Your task to perform on an android device: manage bookmarks in the chrome app Image 0: 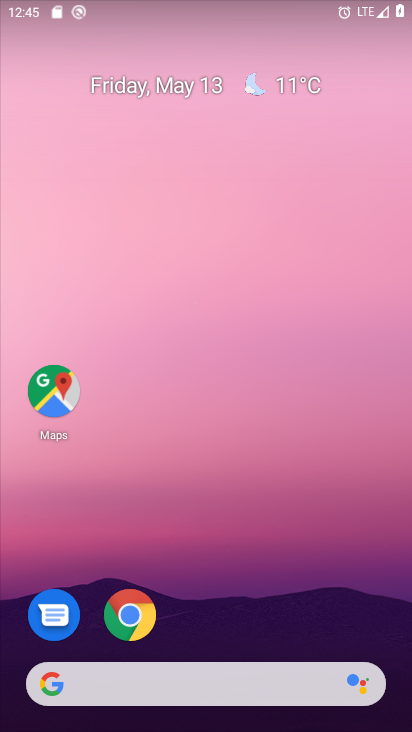
Step 0: click (126, 608)
Your task to perform on an android device: manage bookmarks in the chrome app Image 1: 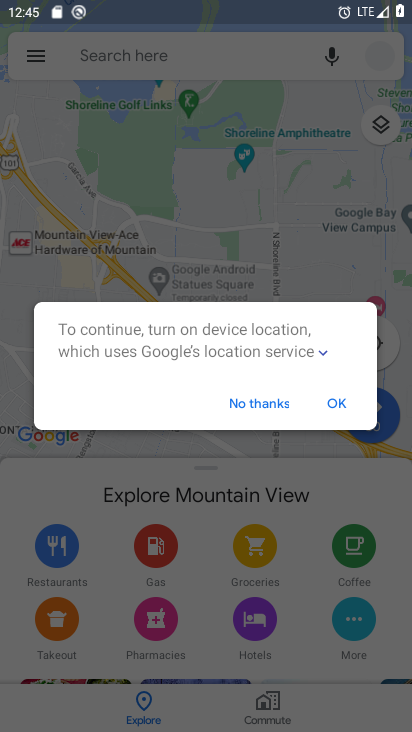
Step 1: click (265, 392)
Your task to perform on an android device: manage bookmarks in the chrome app Image 2: 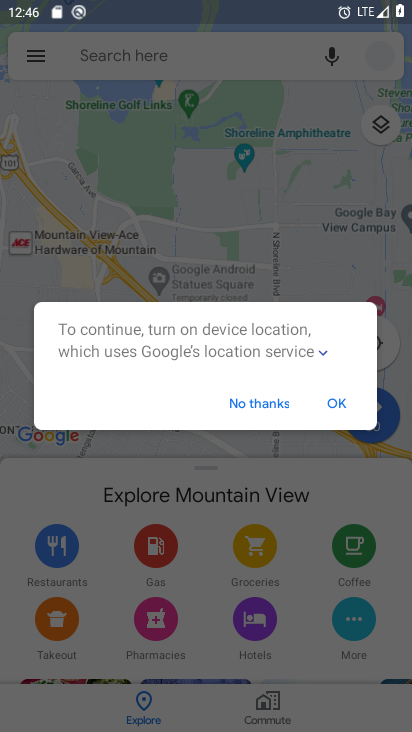
Step 2: click (262, 404)
Your task to perform on an android device: manage bookmarks in the chrome app Image 3: 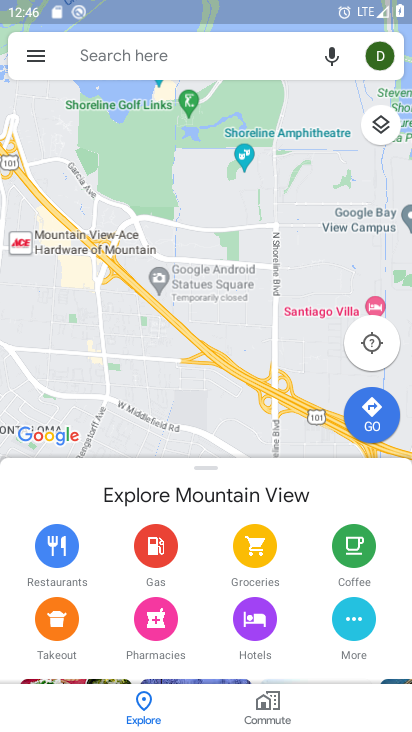
Step 3: press home button
Your task to perform on an android device: manage bookmarks in the chrome app Image 4: 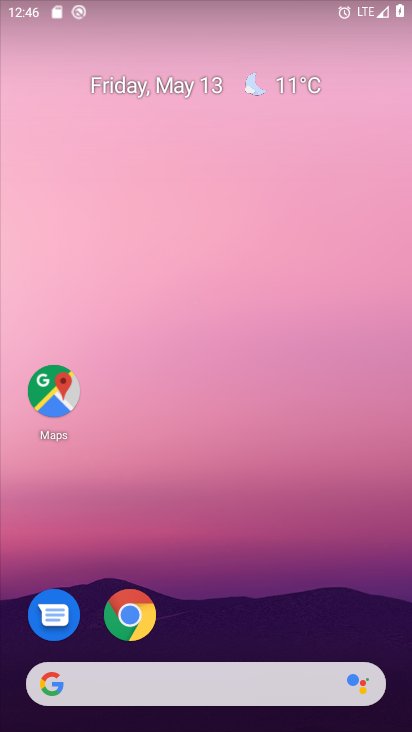
Step 4: drag from (231, 562) to (268, 212)
Your task to perform on an android device: manage bookmarks in the chrome app Image 5: 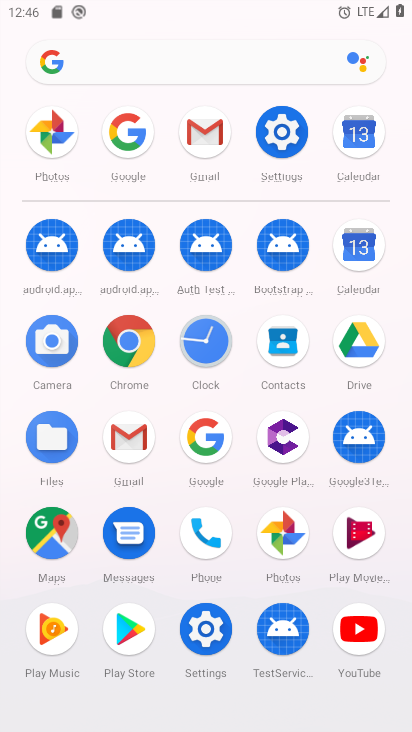
Step 5: click (133, 349)
Your task to perform on an android device: manage bookmarks in the chrome app Image 6: 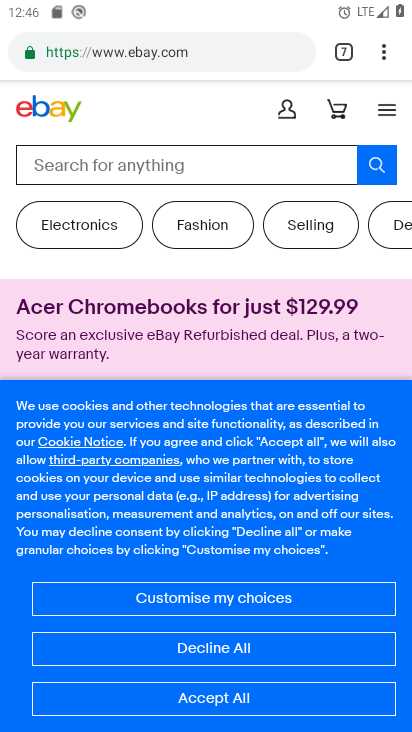
Step 6: click (384, 50)
Your task to perform on an android device: manage bookmarks in the chrome app Image 7: 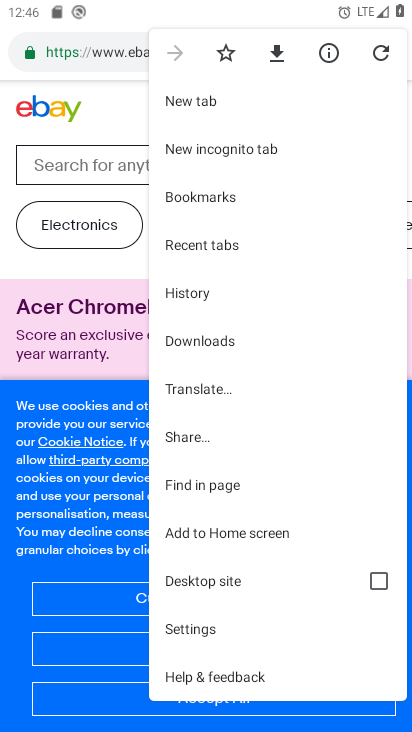
Step 7: click (244, 192)
Your task to perform on an android device: manage bookmarks in the chrome app Image 8: 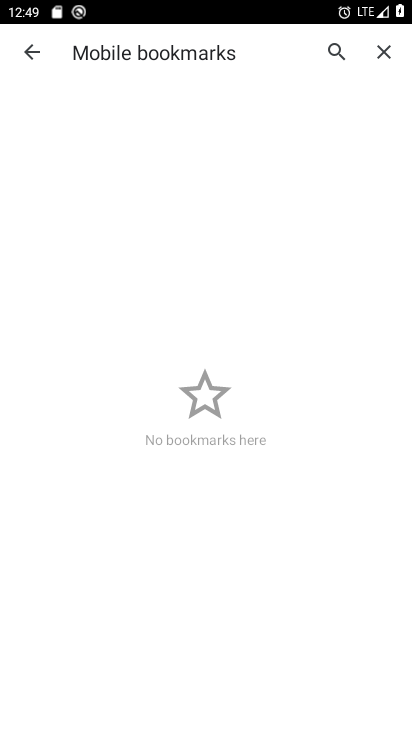
Step 8: task complete